Your task to perform on an android device: Open Google Maps Image 0: 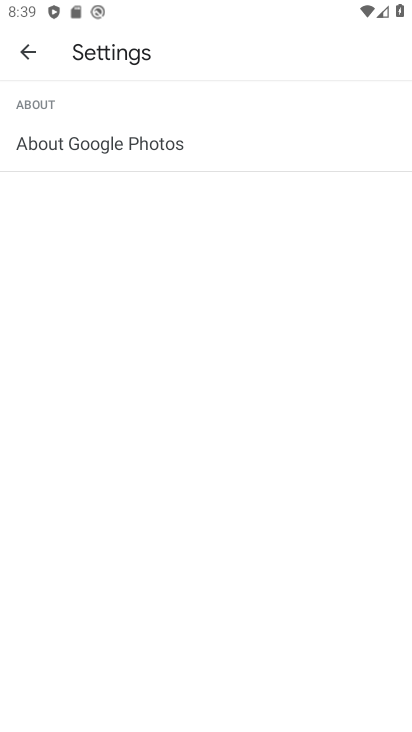
Step 0: press home button
Your task to perform on an android device: Open Google Maps Image 1: 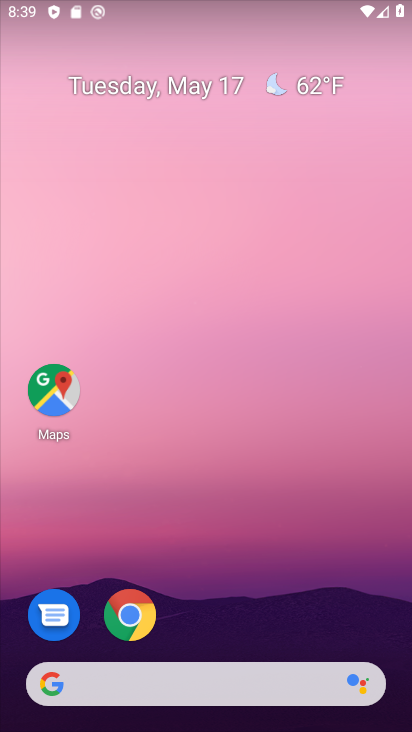
Step 1: click (61, 371)
Your task to perform on an android device: Open Google Maps Image 2: 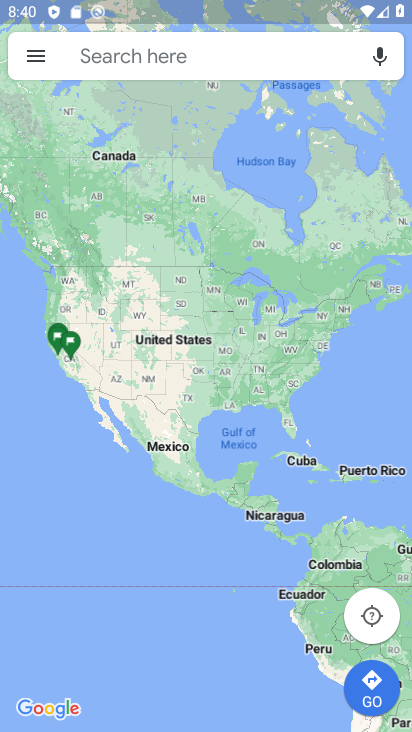
Step 2: task complete